Your task to perform on an android device: change keyboard looks Image 0: 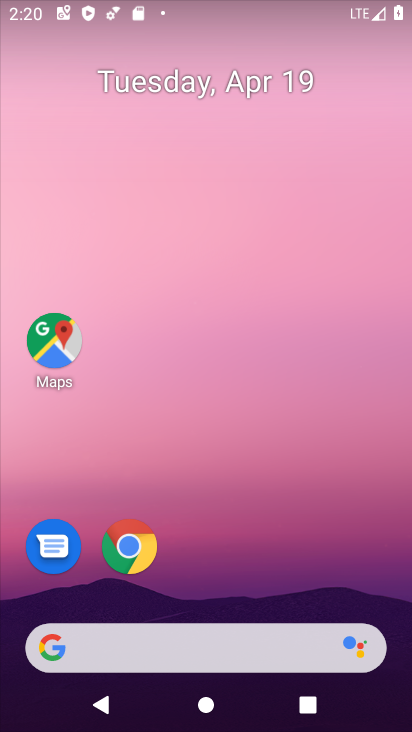
Step 0: drag from (195, 631) to (257, 169)
Your task to perform on an android device: change keyboard looks Image 1: 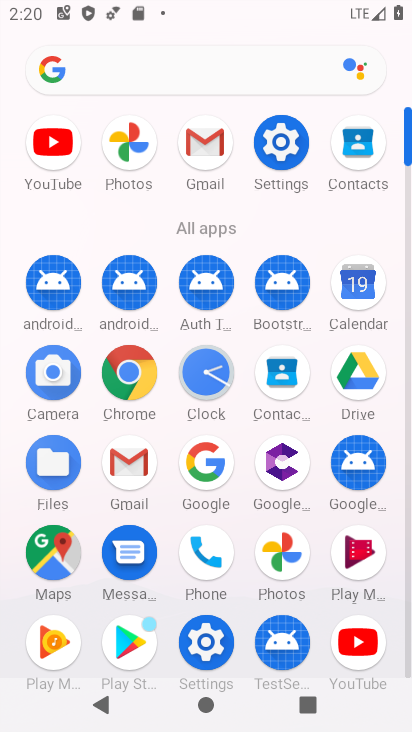
Step 1: click (203, 636)
Your task to perform on an android device: change keyboard looks Image 2: 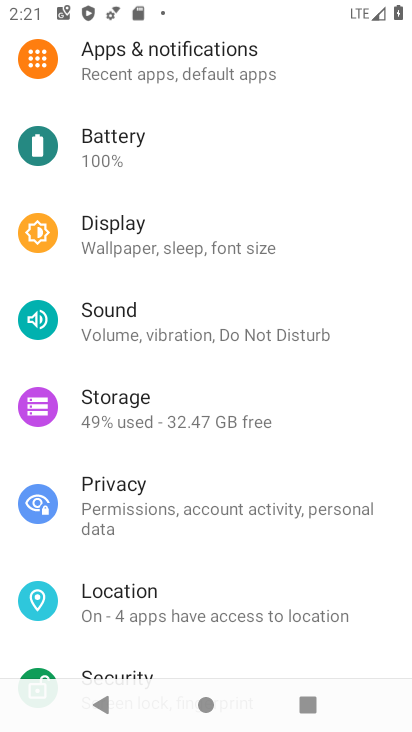
Step 2: drag from (136, 568) to (153, 142)
Your task to perform on an android device: change keyboard looks Image 3: 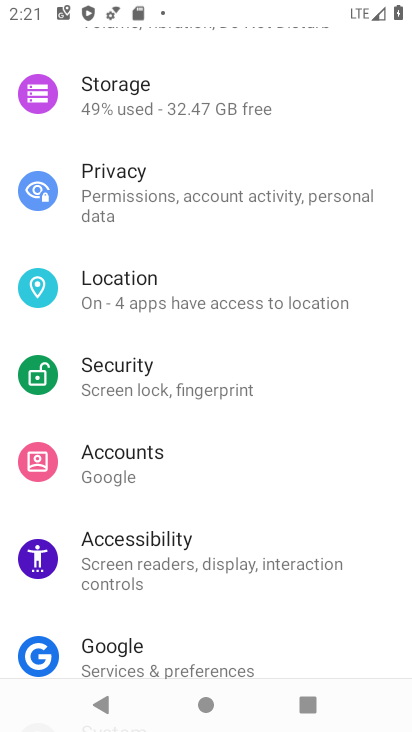
Step 3: drag from (177, 600) to (163, 15)
Your task to perform on an android device: change keyboard looks Image 4: 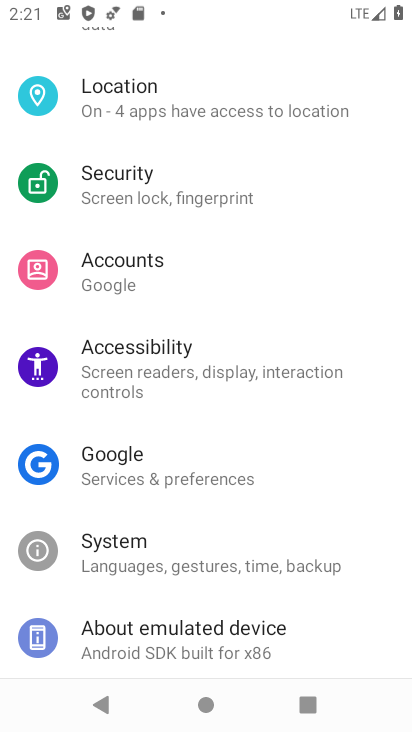
Step 4: click (126, 563)
Your task to perform on an android device: change keyboard looks Image 5: 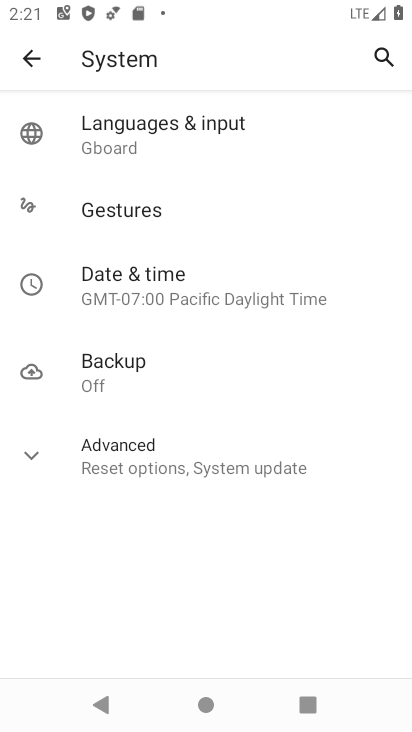
Step 5: click (113, 137)
Your task to perform on an android device: change keyboard looks Image 6: 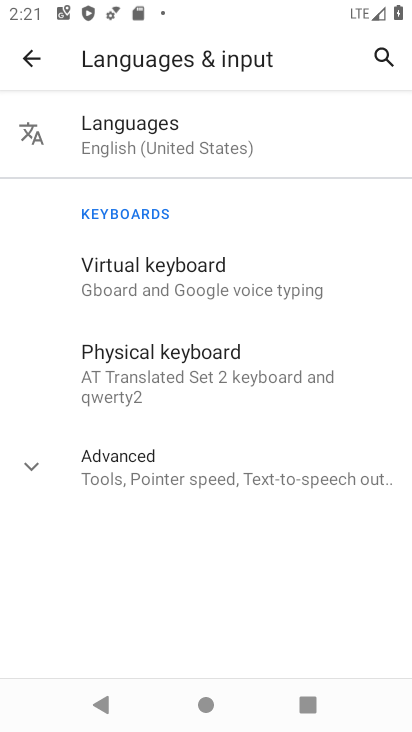
Step 6: click (181, 277)
Your task to perform on an android device: change keyboard looks Image 7: 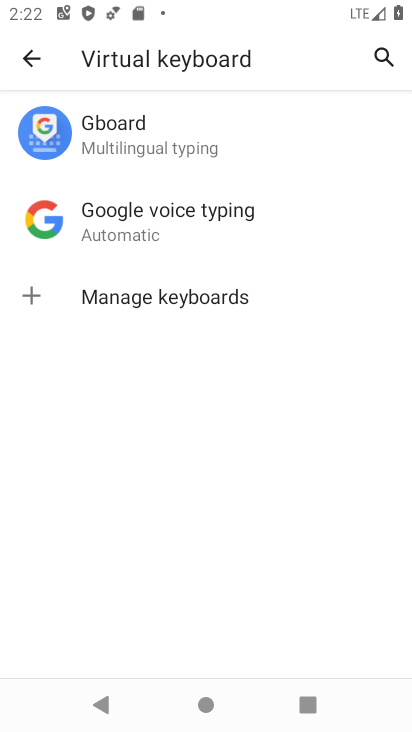
Step 7: click (138, 138)
Your task to perform on an android device: change keyboard looks Image 8: 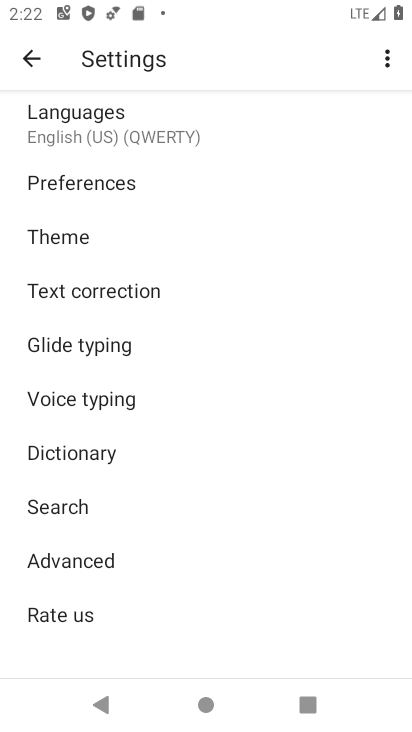
Step 8: click (71, 227)
Your task to perform on an android device: change keyboard looks Image 9: 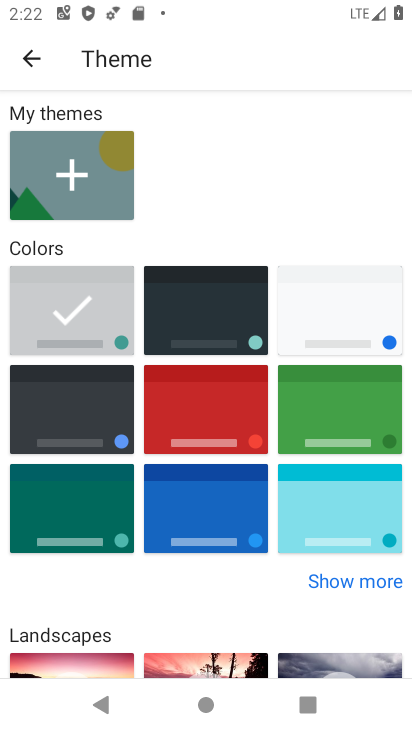
Step 9: click (100, 466)
Your task to perform on an android device: change keyboard looks Image 10: 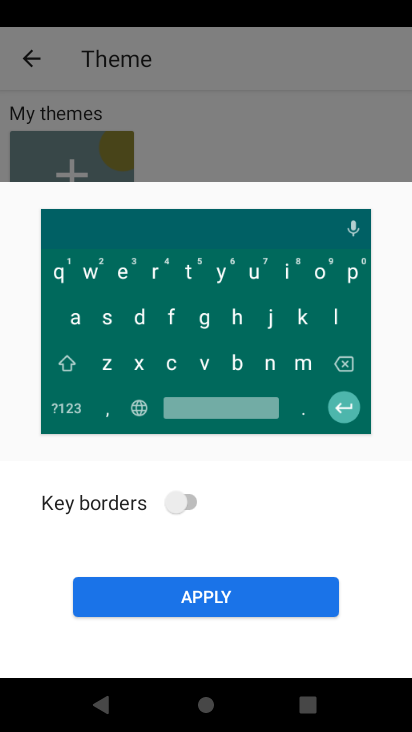
Step 10: click (247, 587)
Your task to perform on an android device: change keyboard looks Image 11: 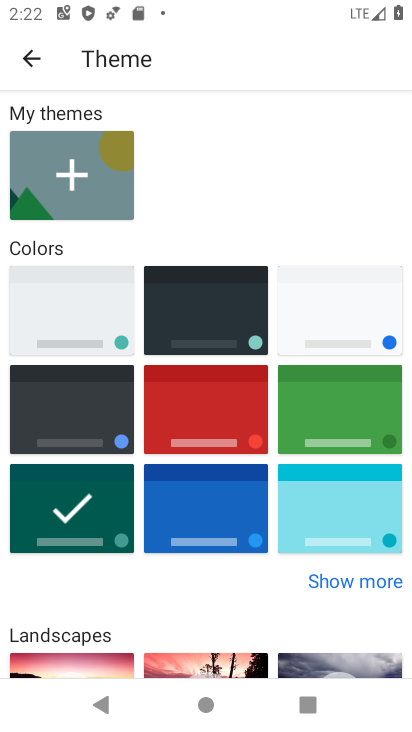
Step 11: task complete